Your task to perform on an android device: Open settings on Google Maps Image 0: 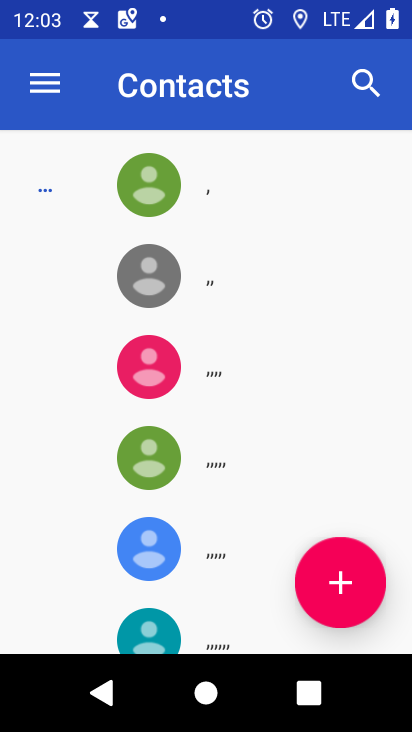
Step 0: press home button
Your task to perform on an android device: Open settings on Google Maps Image 1: 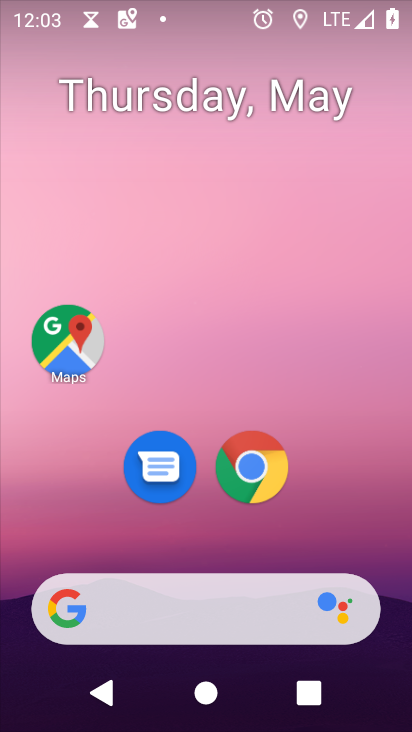
Step 1: click (74, 346)
Your task to perform on an android device: Open settings on Google Maps Image 2: 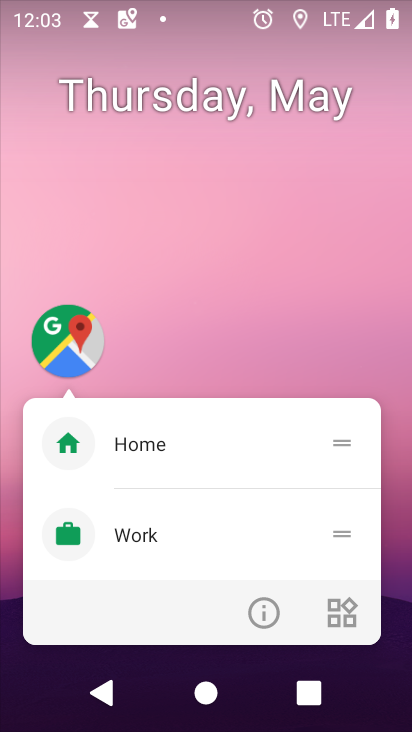
Step 2: click (67, 353)
Your task to perform on an android device: Open settings on Google Maps Image 3: 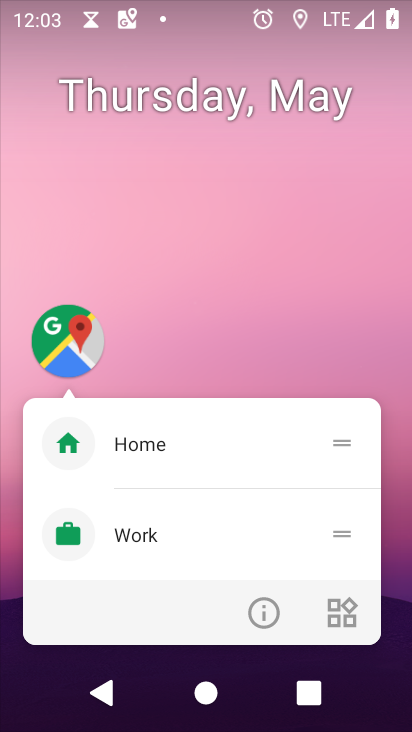
Step 3: click (67, 351)
Your task to perform on an android device: Open settings on Google Maps Image 4: 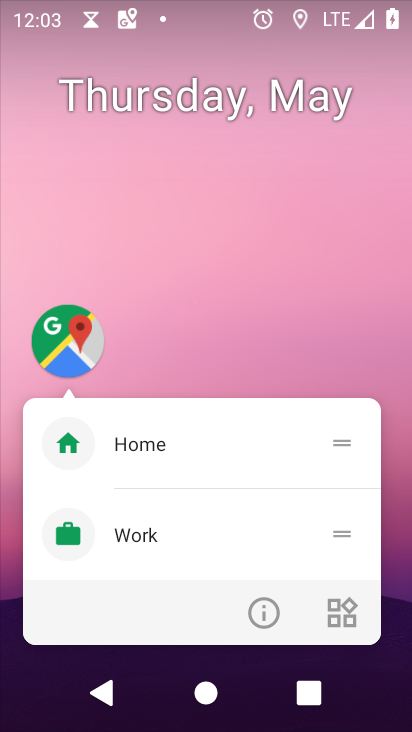
Step 4: click (97, 358)
Your task to perform on an android device: Open settings on Google Maps Image 5: 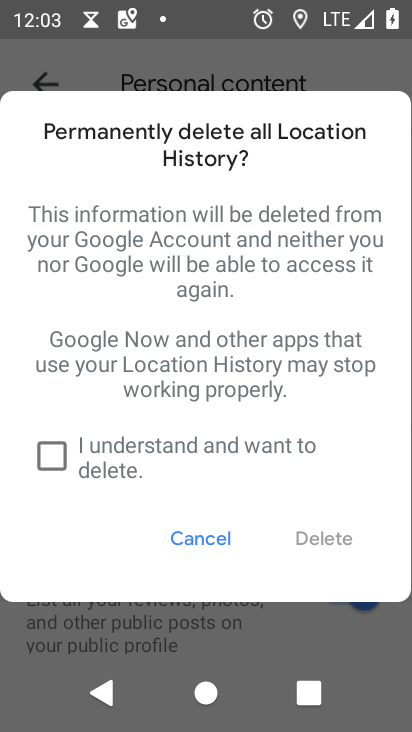
Step 5: click (194, 534)
Your task to perform on an android device: Open settings on Google Maps Image 6: 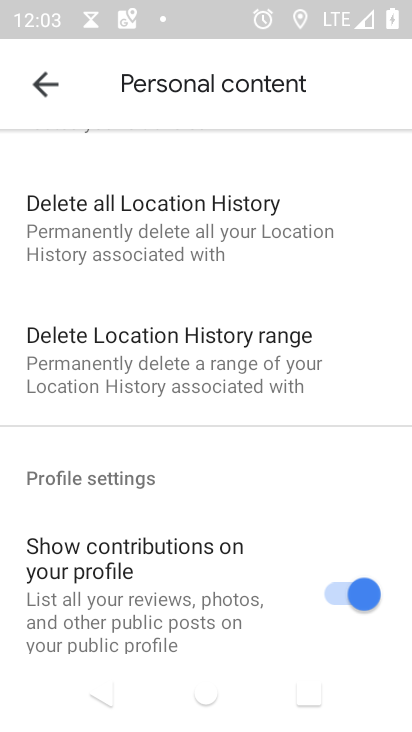
Step 6: click (47, 87)
Your task to perform on an android device: Open settings on Google Maps Image 7: 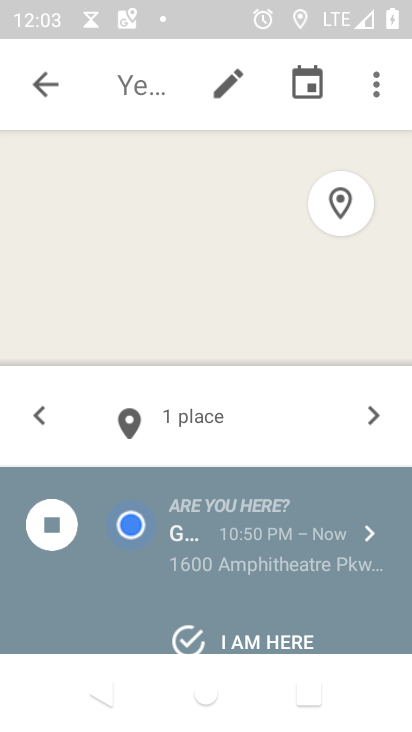
Step 7: click (50, 87)
Your task to perform on an android device: Open settings on Google Maps Image 8: 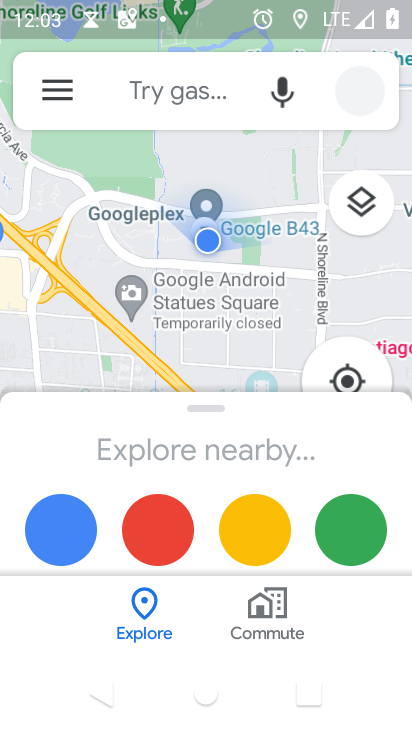
Step 8: click (50, 87)
Your task to perform on an android device: Open settings on Google Maps Image 9: 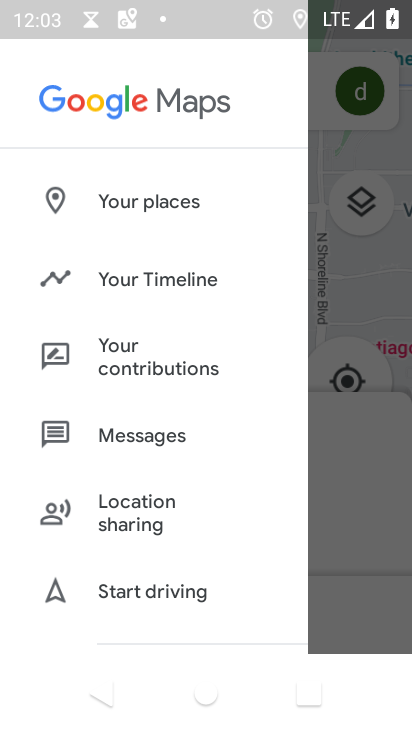
Step 9: drag from (190, 622) to (199, 214)
Your task to perform on an android device: Open settings on Google Maps Image 10: 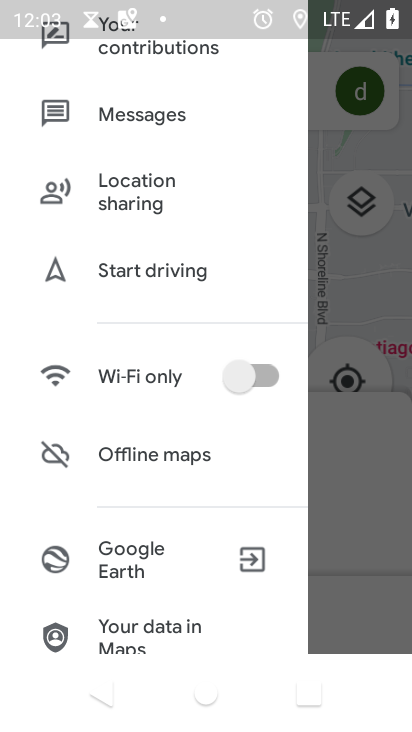
Step 10: drag from (185, 589) to (279, 250)
Your task to perform on an android device: Open settings on Google Maps Image 11: 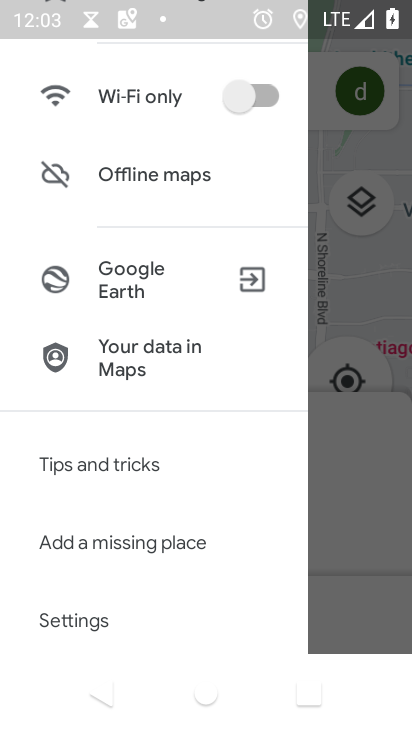
Step 11: click (65, 622)
Your task to perform on an android device: Open settings on Google Maps Image 12: 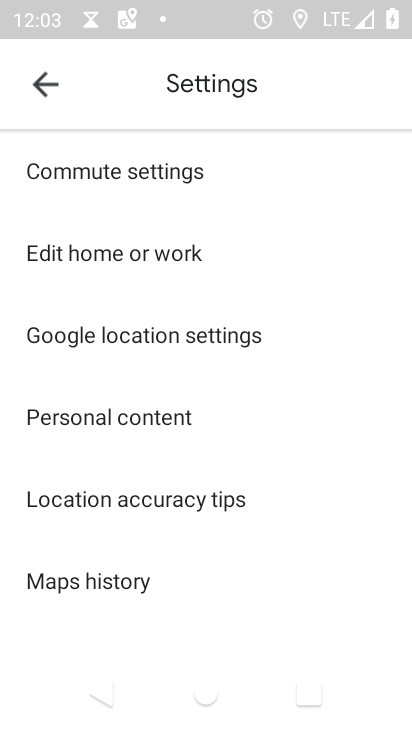
Step 12: task complete